Your task to perform on an android device: delete location history Image 0: 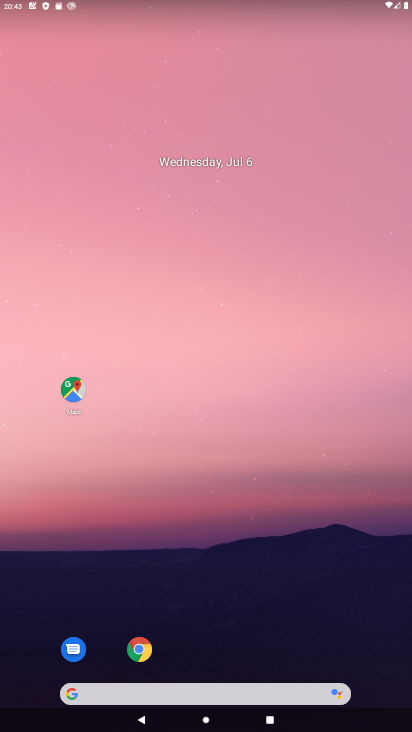
Step 0: drag from (195, 628) to (305, 8)
Your task to perform on an android device: delete location history Image 1: 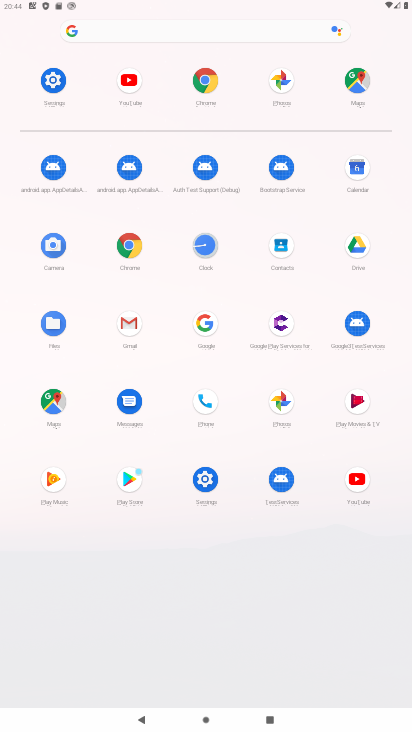
Step 1: click (54, 392)
Your task to perform on an android device: delete location history Image 2: 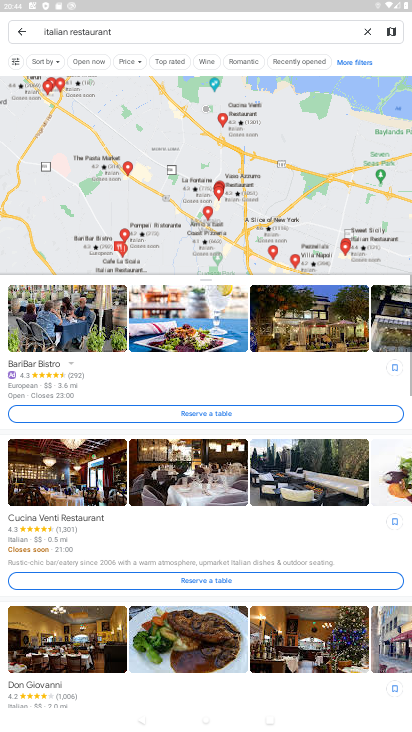
Step 2: click (26, 30)
Your task to perform on an android device: delete location history Image 3: 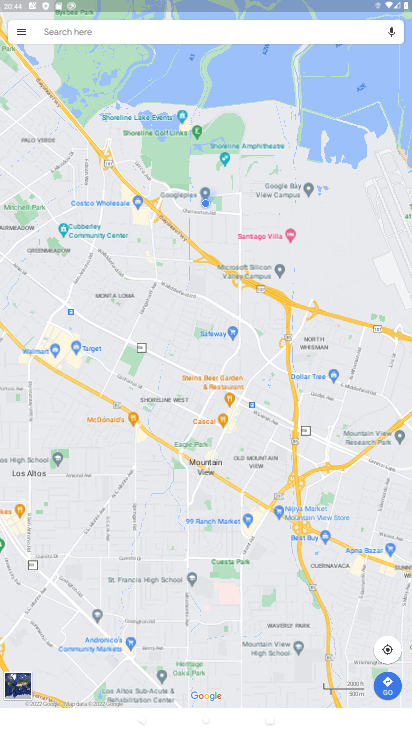
Step 3: click (22, 28)
Your task to perform on an android device: delete location history Image 4: 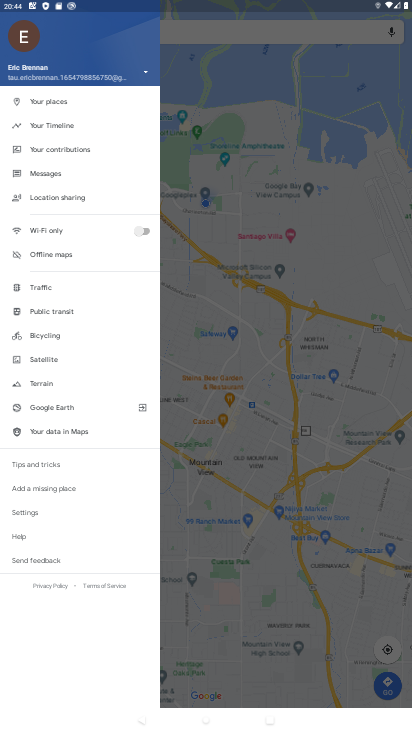
Step 4: click (34, 509)
Your task to perform on an android device: delete location history Image 5: 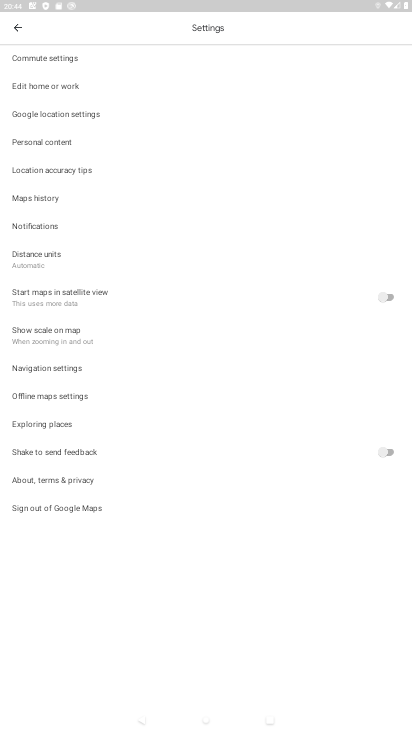
Step 5: click (16, 23)
Your task to perform on an android device: delete location history Image 6: 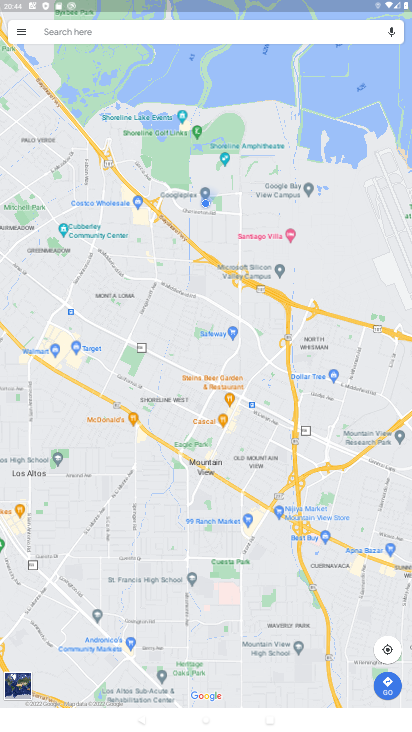
Step 6: click (20, 32)
Your task to perform on an android device: delete location history Image 7: 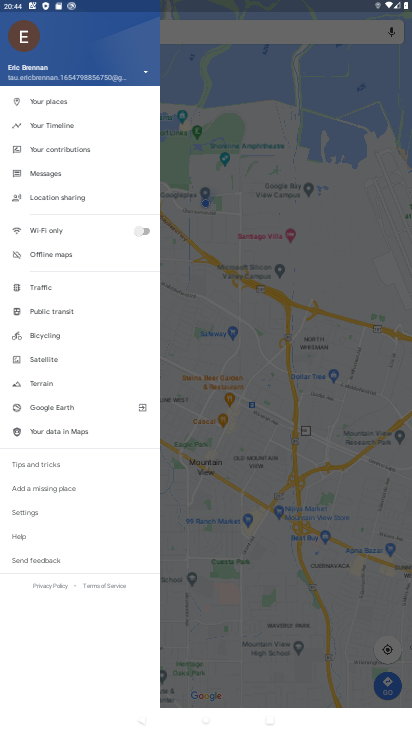
Step 7: click (61, 127)
Your task to perform on an android device: delete location history Image 8: 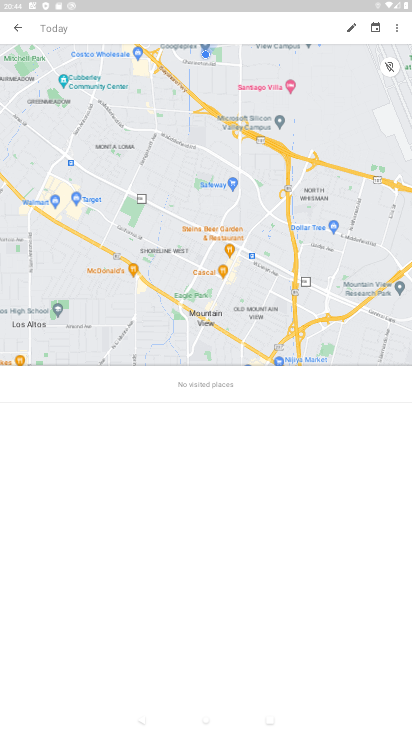
Step 8: click (398, 30)
Your task to perform on an android device: delete location history Image 9: 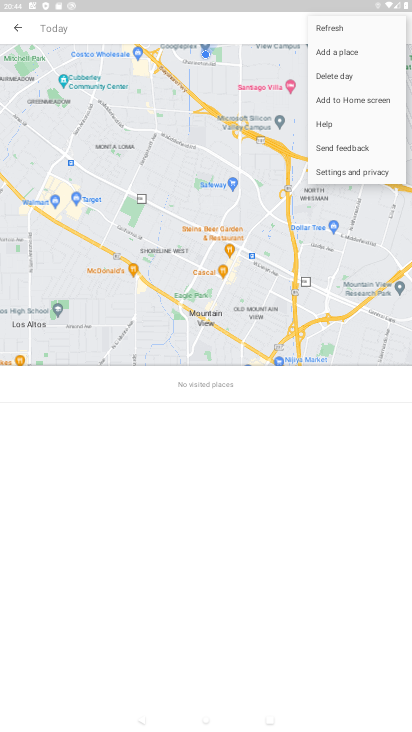
Step 9: click (329, 171)
Your task to perform on an android device: delete location history Image 10: 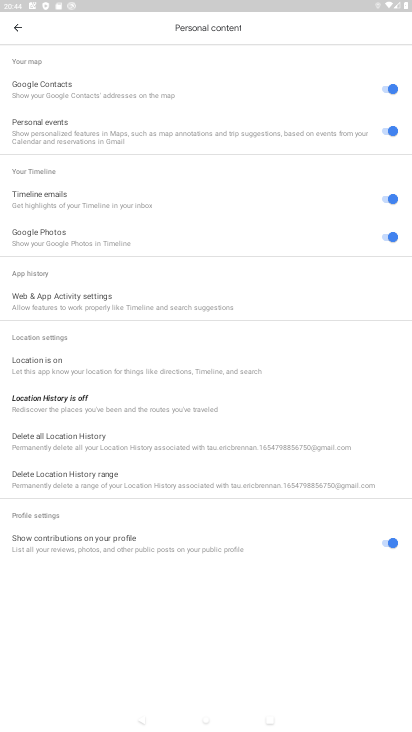
Step 10: click (113, 441)
Your task to perform on an android device: delete location history Image 11: 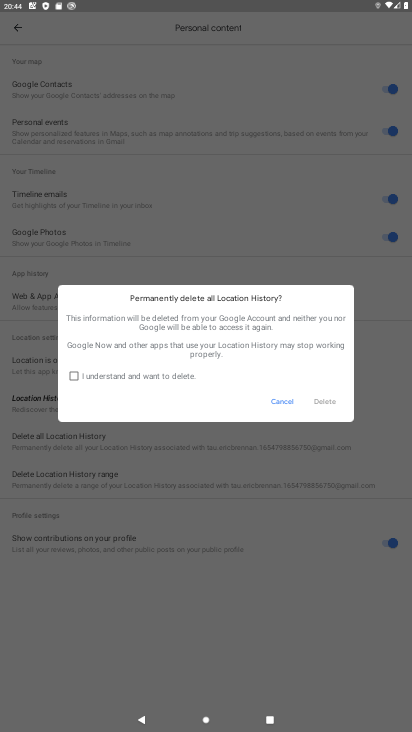
Step 11: click (143, 375)
Your task to perform on an android device: delete location history Image 12: 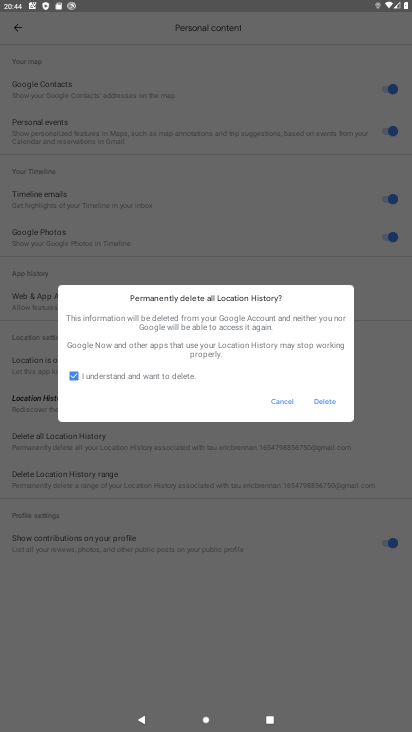
Step 12: click (332, 401)
Your task to perform on an android device: delete location history Image 13: 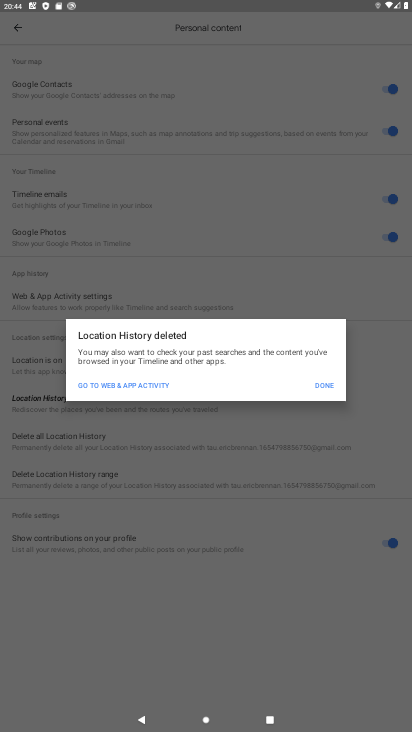
Step 13: click (320, 387)
Your task to perform on an android device: delete location history Image 14: 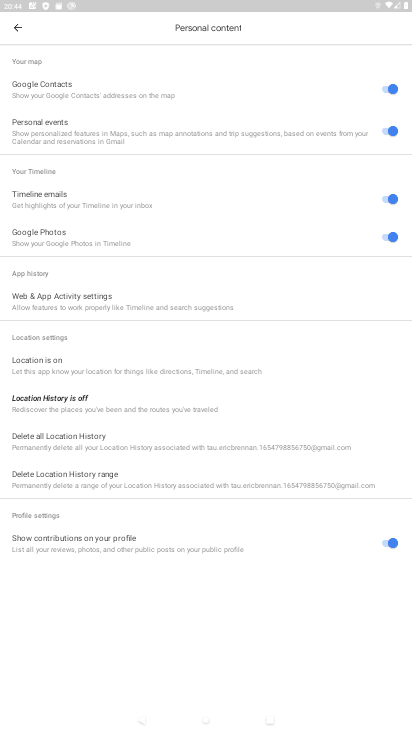
Step 14: task complete